Your task to perform on an android device: Go to privacy settings Image 0: 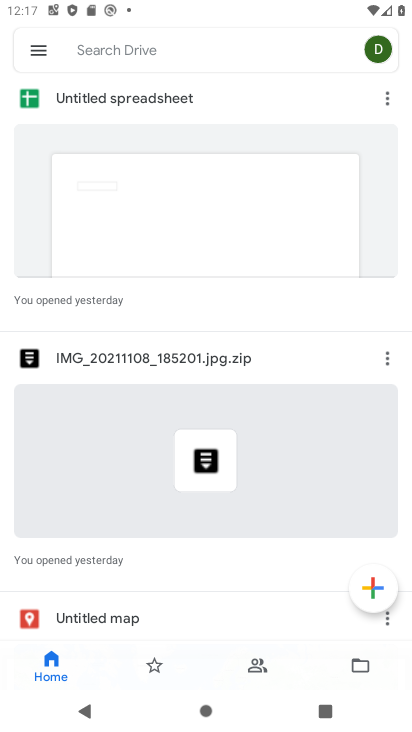
Step 0: press home button
Your task to perform on an android device: Go to privacy settings Image 1: 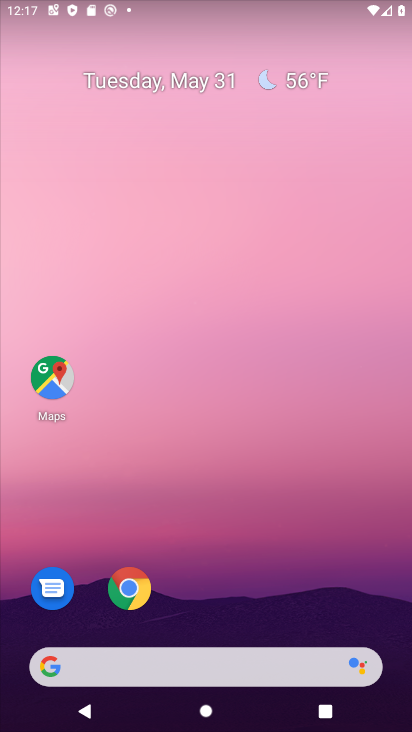
Step 1: drag from (199, 616) to (170, 163)
Your task to perform on an android device: Go to privacy settings Image 2: 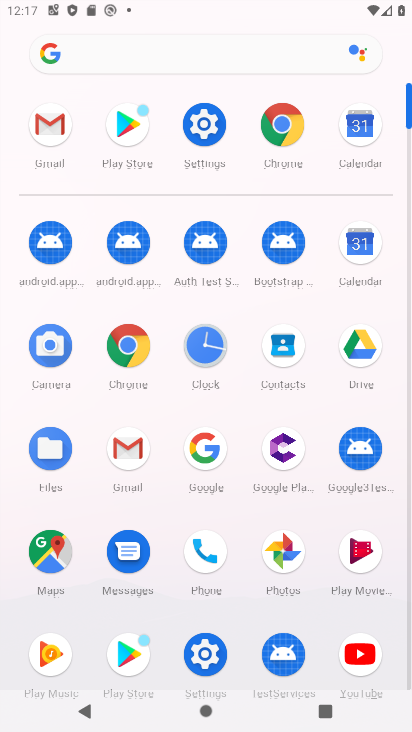
Step 2: click (214, 134)
Your task to perform on an android device: Go to privacy settings Image 3: 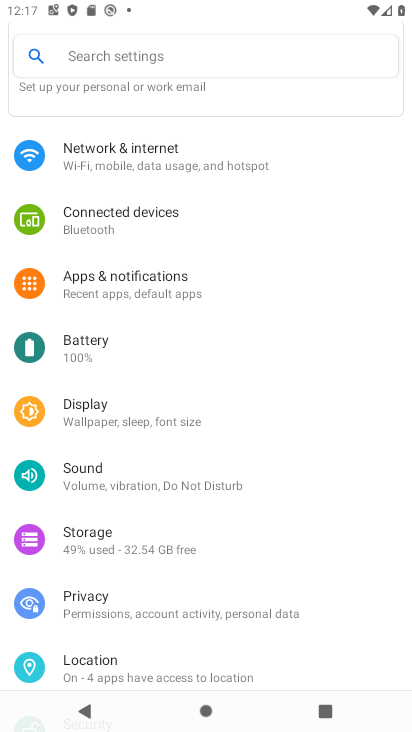
Step 3: click (108, 617)
Your task to perform on an android device: Go to privacy settings Image 4: 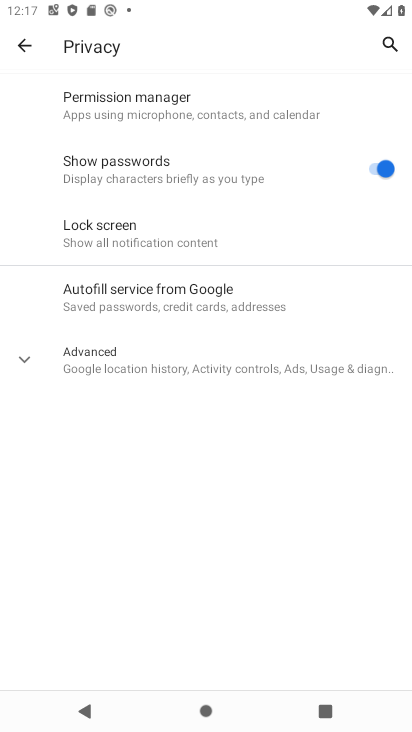
Step 4: task complete